Your task to perform on an android device: Is it going to rain tomorrow? Image 0: 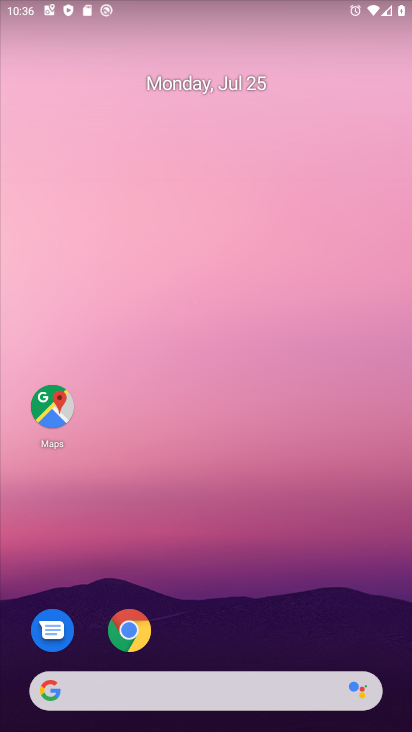
Step 0: click (117, 631)
Your task to perform on an android device: Is it going to rain tomorrow? Image 1: 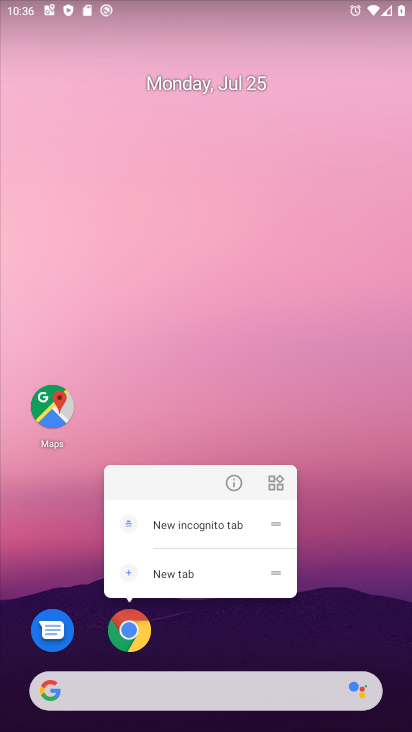
Step 1: click (126, 624)
Your task to perform on an android device: Is it going to rain tomorrow? Image 2: 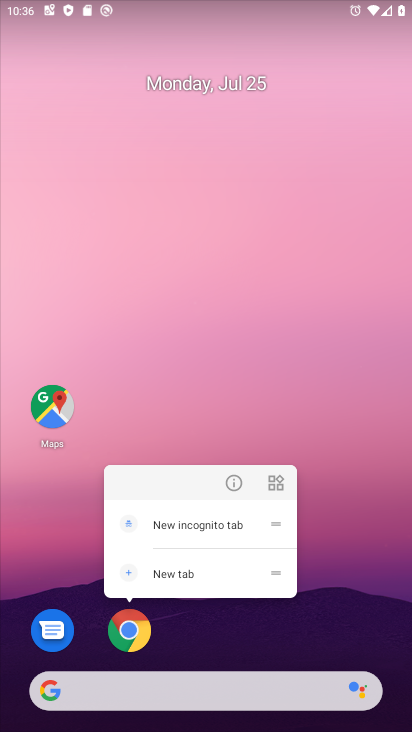
Step 2: click (127, 635)
Your task to perform on an android device: Is it going to rain tomorrow? Image 3: 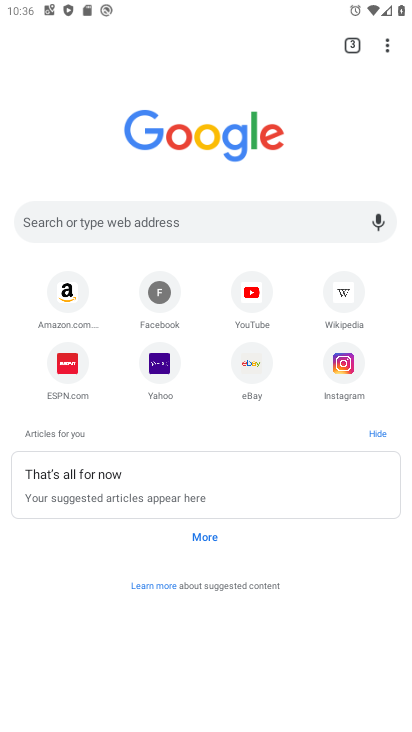
Step 3: click (165, 217)
Your task to perform on an android device: Is it going to rain tomorrow? Image 4: 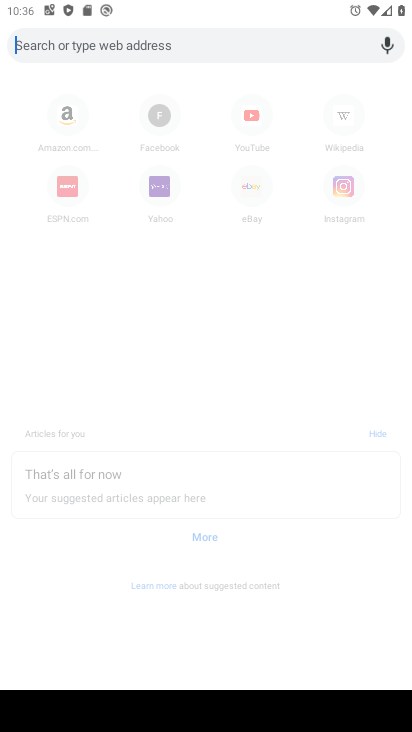
Step 4: type "weather tomorrow"
Your task to perform on an android device: Is it going to rain tomorrow? Image 5: 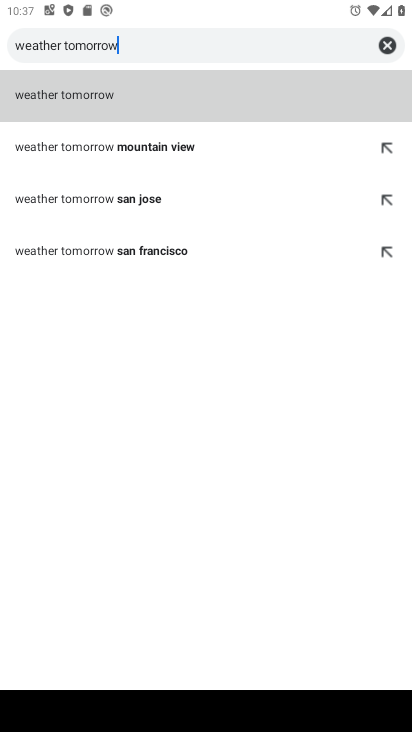
Step 5: click (190, 102)
Your task to perform on an android device: Is it going to rain tomorrow? Image 6: 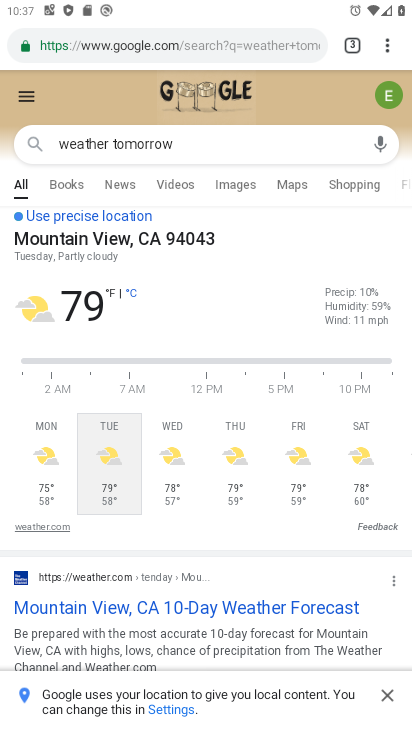
Step 6: task complete